Your task to perform on an android device: turn off location history Image 0: 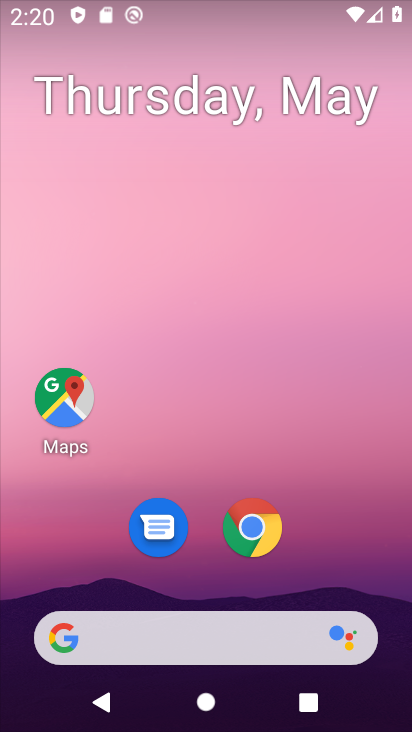
Step 0: drag from (323, 568) to (317, 52)
Your task to perform on an android device: turn off location history Image 1: 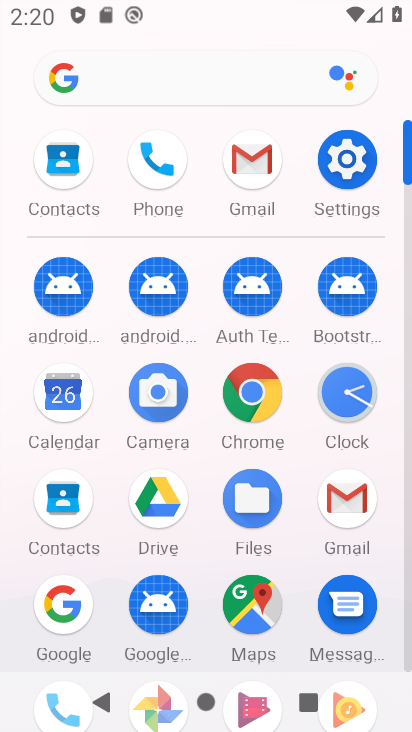
Step 1: click (407, 660)
Your task to perform on an android device: turn off location history Image 2: 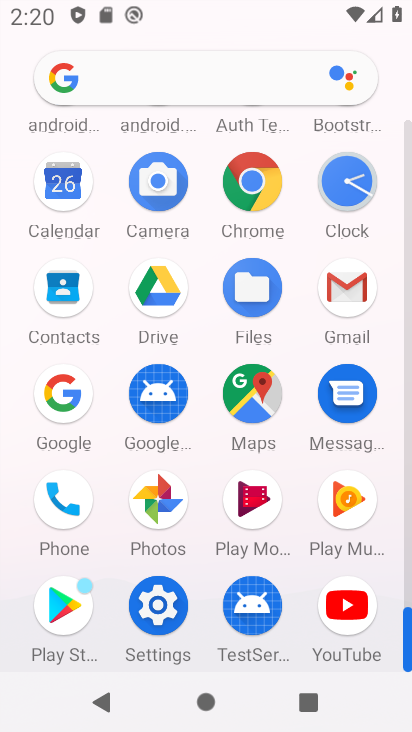
Step 2: click (175, 600)
Your task to perform on an android device: turn off location history Image 3: 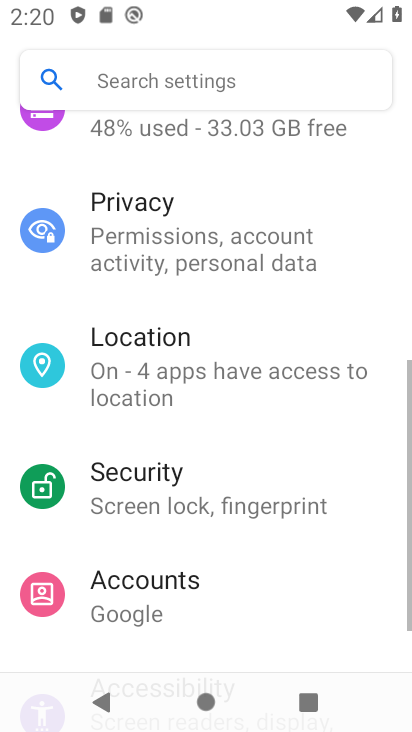
Step 3: press home button
Your task to perform on an android device: turn off location history Image 4: 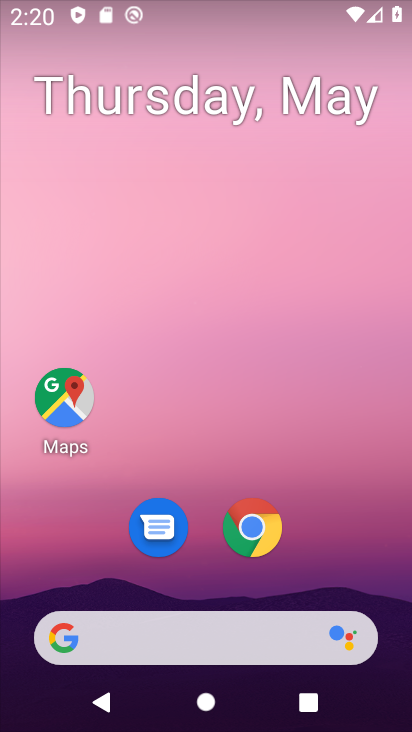
Step 4: click (59, 401)
Your task to perform on an android device: turn off location history Image 5: 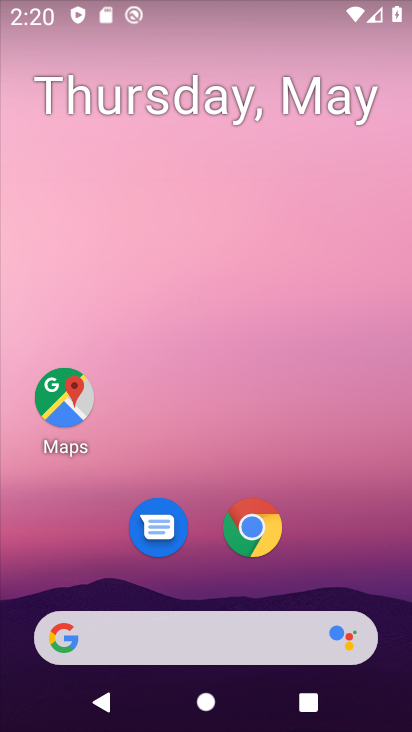
Step 5: click (59, 401)
Your task to perform on an android device: turn off location history Image 6: 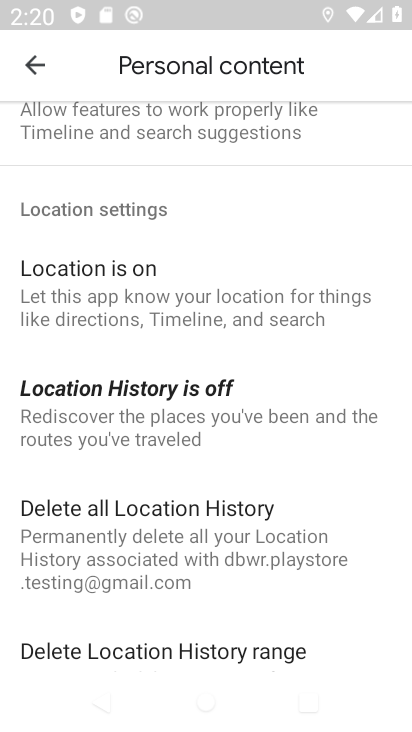
Step 6: click (138, 407)
Your task to perform on an android device: turn off location history Image 7: 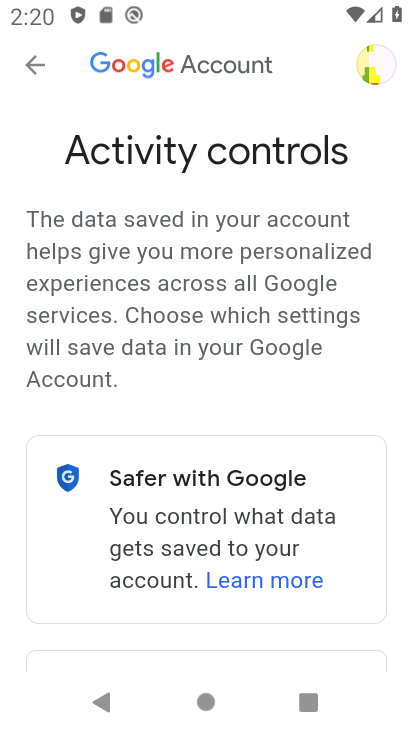
Step 7: task complete